Your task to perform on an android device: change the clock display to analog Image 0: 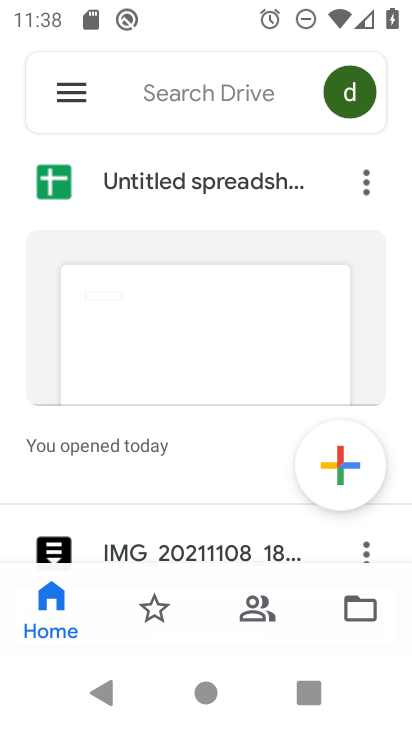
Step 0: press home button
Your task to perform on an android device: change the clock display to analog Image 1: 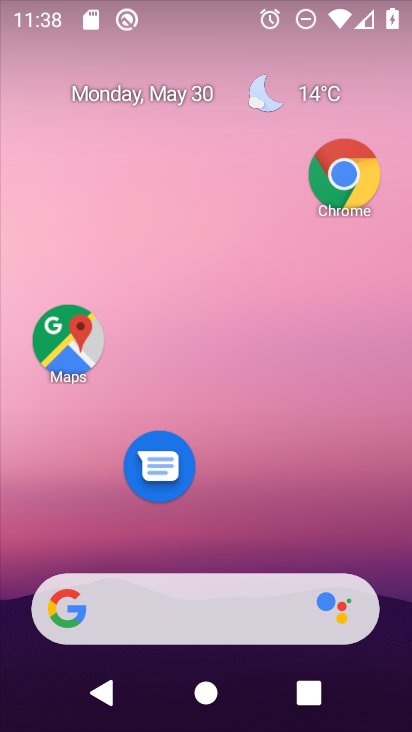
Step 1: drag from (222, 475) to (199, 183)
Your task to perform on an android device: change the clock display to analog Image 2: 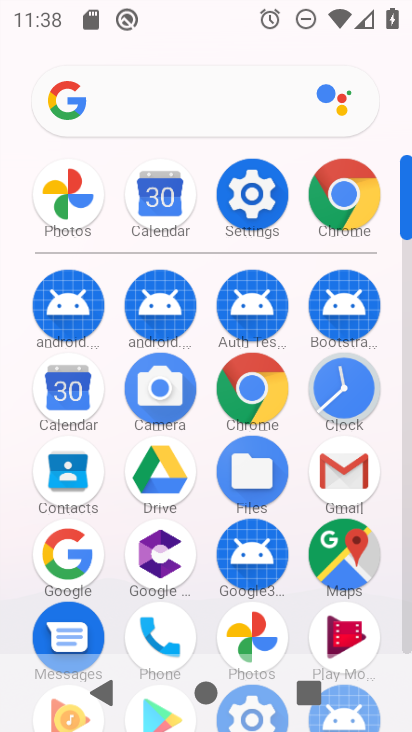
Step 2: click (350, 400)
Your task to perform on an android device: change the clock display to analog Image 3: 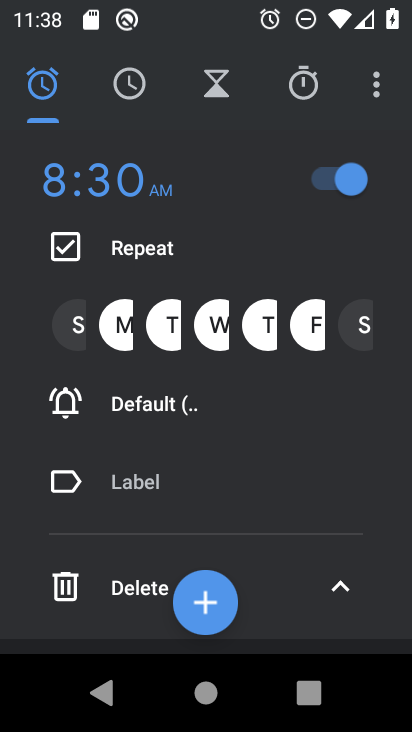
Step 3: click (379, 62)
Your task to perform on an android device: change the clock display to analog Image 4: 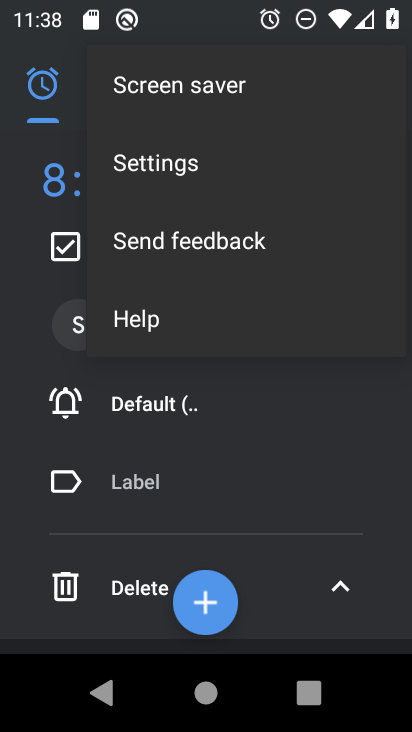
Step 4: click (185, 164)
Your task to perform on an android device: change the clock display to analog Image 5: 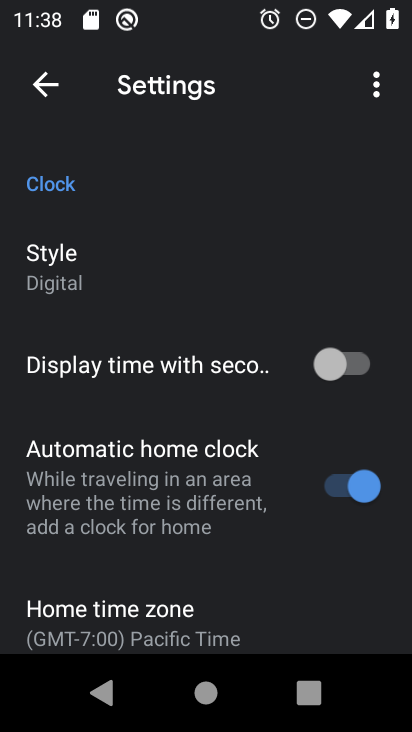
Step 5: click (91, 268)
Your task to perform on an android device: change the clock display to analog Image 6: 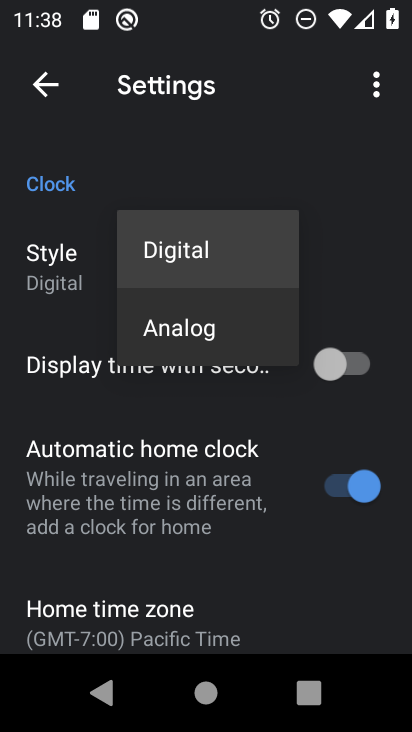
Step 6: click (181, 324)
Your task to perform on an android device: change the clock display to analog Image 7: 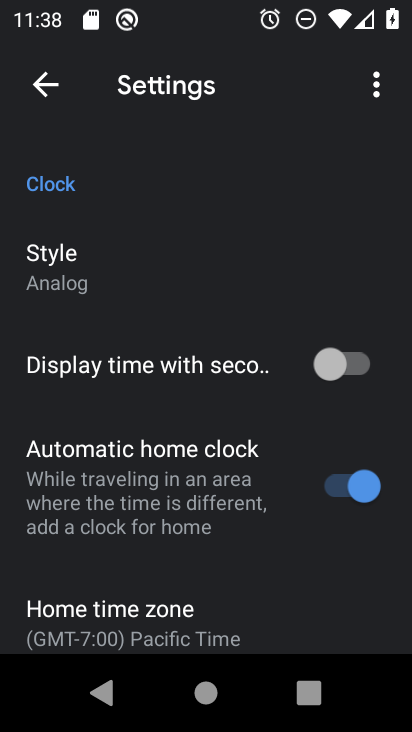
Step 7: task complete